Your task to perform on an android device: Open Google Chrome and open the bookmarks view Image 0: 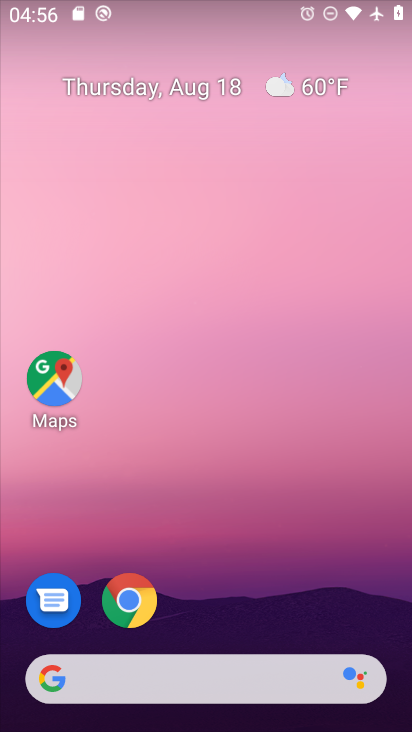
Step 0: press home button
Your task to perform on an android device: Open Google Chrome and open the bookmarks view Image 1: 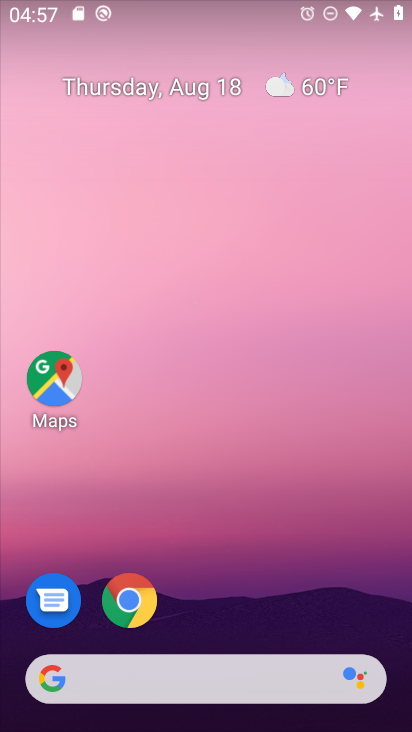
Step 1: click (114, 608)
Your task to perform on an android device: Open Google Chrome and open the bookmarks view Image 2: 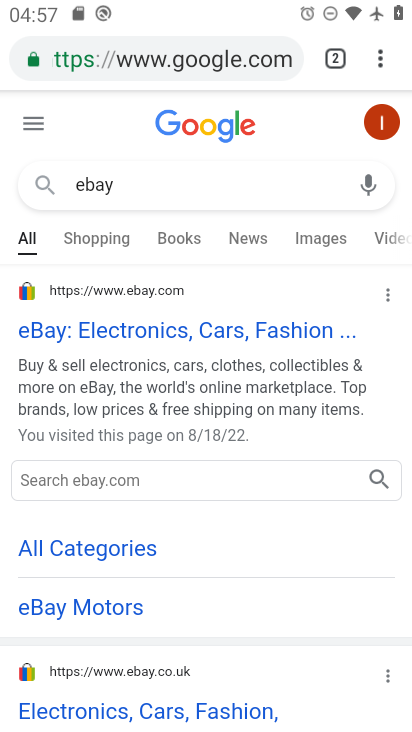
Step 2: task complete